Your task to perform on an android device: read, delete, or share a saved page in the chrome app Image 0: 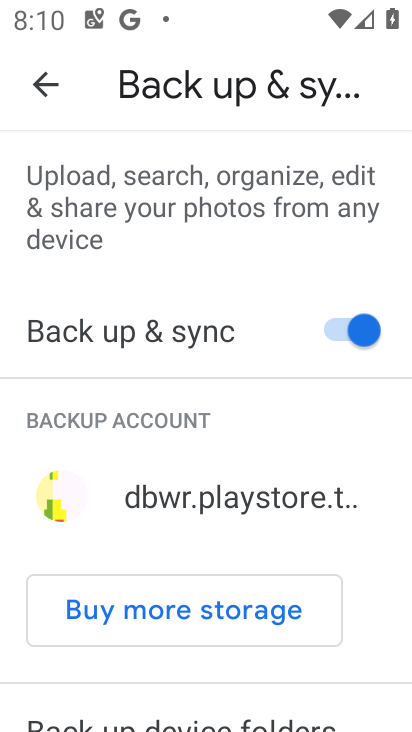
Step 0: press home button
Your task to perform on an android device: read, delete, or share a saved page in the chrome app Image 1: 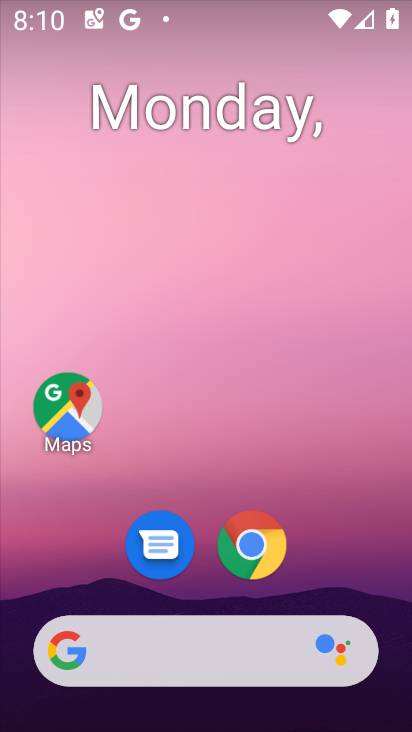
Step 1: click (251, 544)
Your task to perform on an android device: read, delete, or share a saved page in the chrome app Image 2: 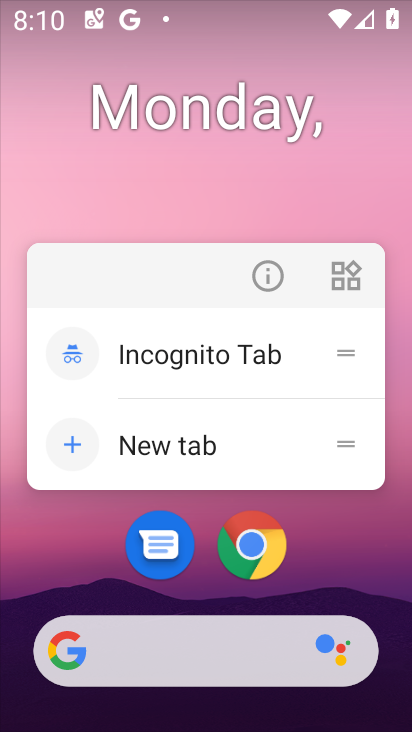
Step 2: click (251, 544)
Your task to perform on an android device: read, delete, or share a saved page in the chrome app Image 3: 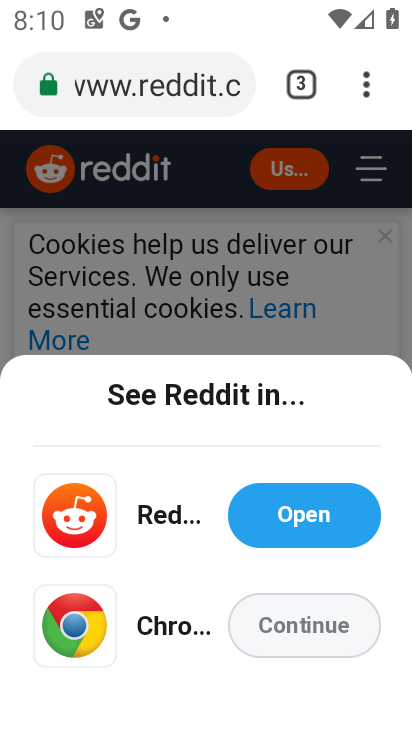
Step 3: drag from (365, 95) to (183, 326)
Your task to perform on an android device: read, delete, or share a saved page in the chrome app Image 4: 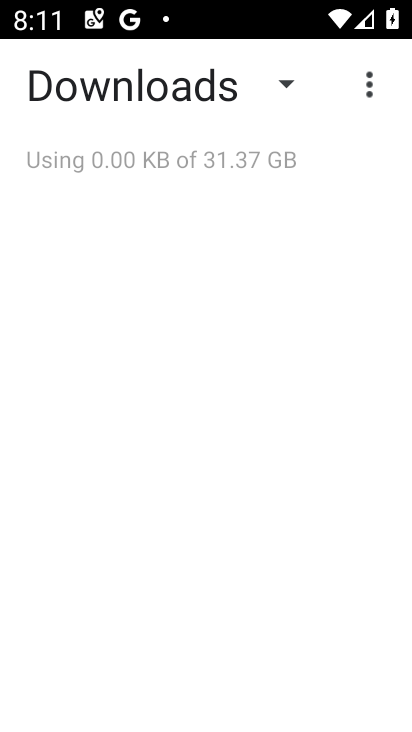
Step 4: click (281, 85)
Your task to perform on an android device: read, delete, or share a saved page in the chrome app Image 5: 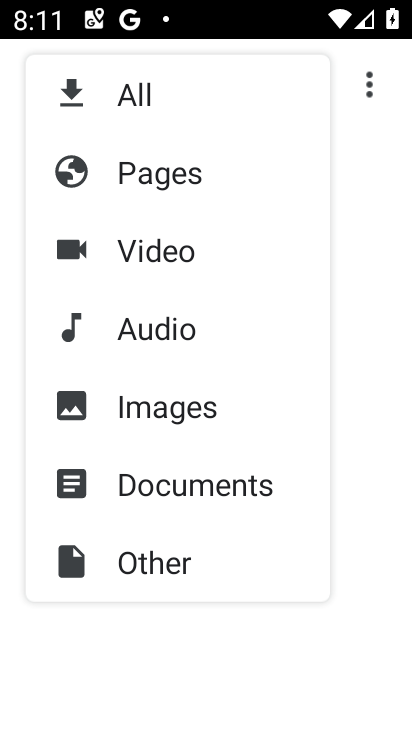
Step 5: click (192, 177)
Your task to perform on an android device: read, delete, or share a saved page in the chrome app Image 6: 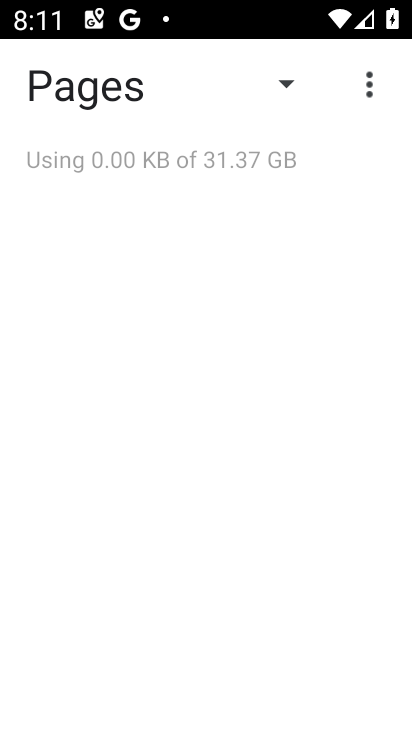
Step 6: task complete